Your task to perform on an android device: Turn off the flashlight Image 0: 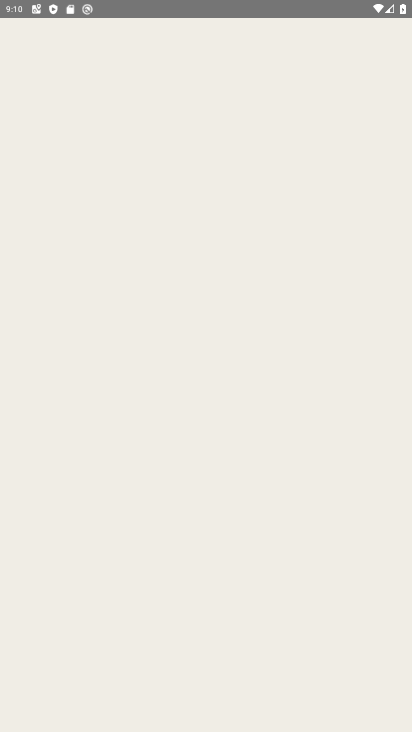
Step 0: drag from (225, 490) to (282, 128)
Your task to perform on an android device: Turn off the flashlight Image 1: 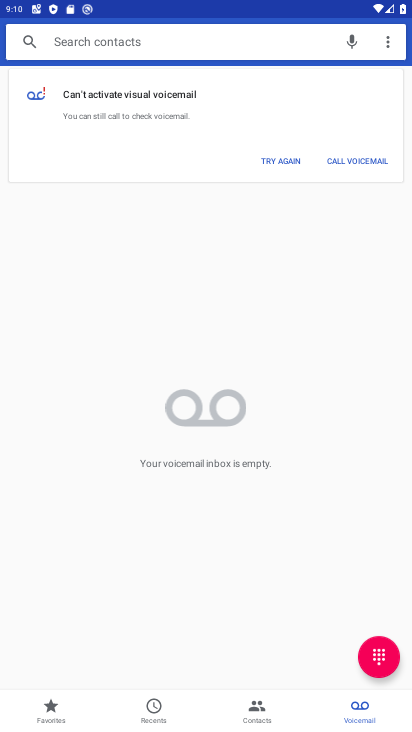
Step 1: press home button
Your task to perform on an android device: Turn off the flashlight Image 2: 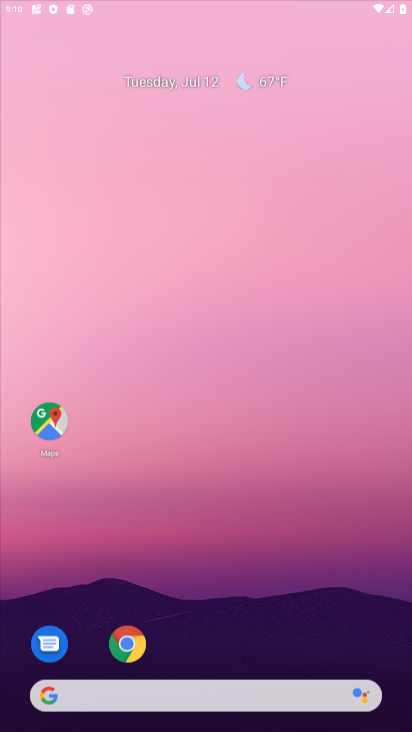
Step 2: drag from (197, 602) to (250, 230)
Your task to perform on an android device: Turn off the flashlight Image 3: 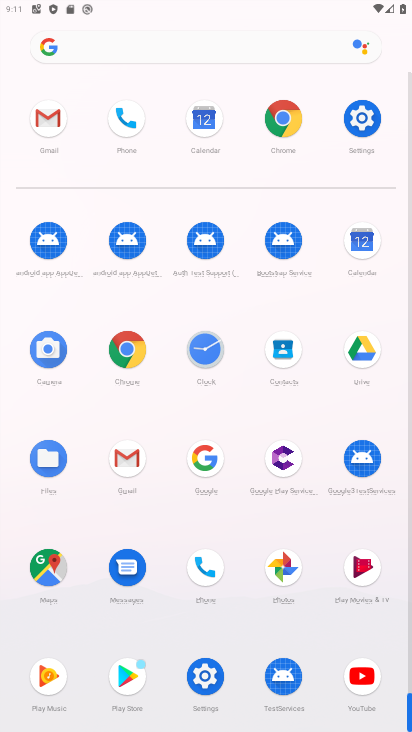
Step 3: click (138, 45)
Your task to perform on an android device: Turn off the flashlight Image 4: 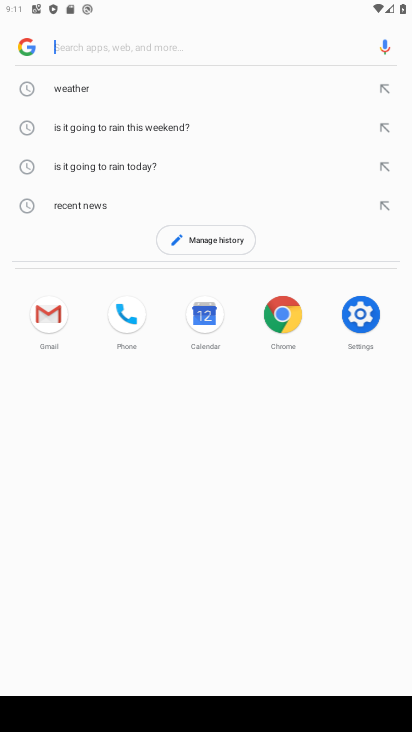
Step 4: click (376, 324)
Your task to perform on an android device: Turn off the flashlight Image 5: 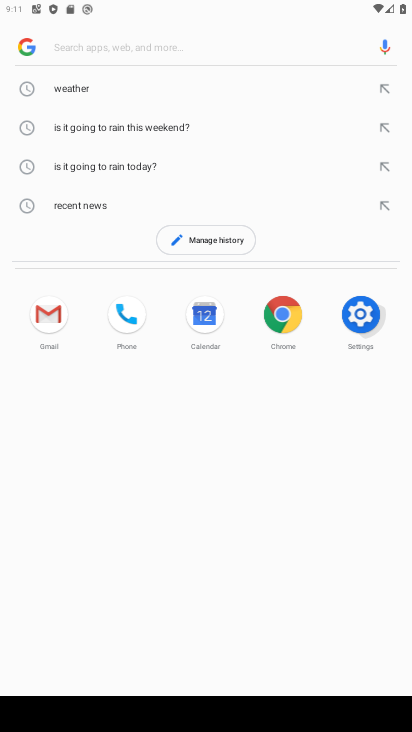
Step 5: click (367, 321)
Your task to perform on an android device: Turn off the flashlight Image 6: 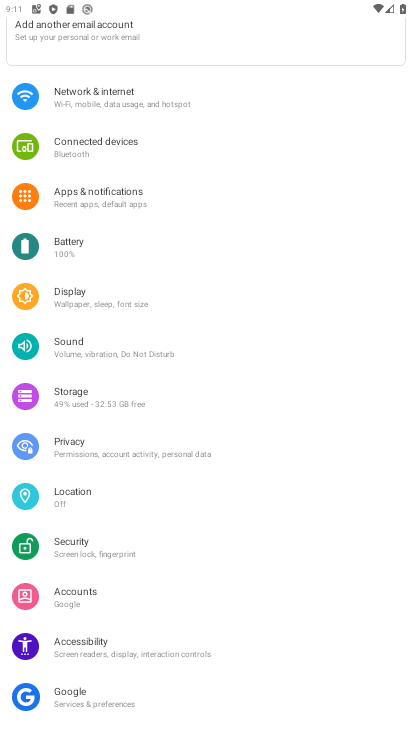
Step 6: drag from (191, 148) to (228, 451)
Your task to perform on an android device: Turn off the flashlight Image 7: 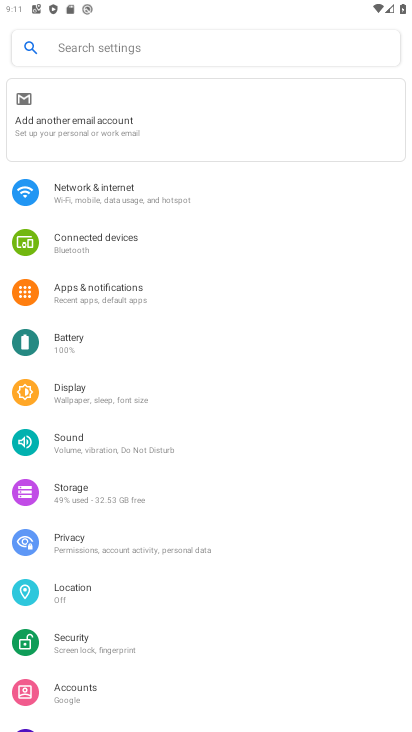
Step 7: click (153, 35)
Your task to perform on an android device: Turn off the flashlight Image 8: 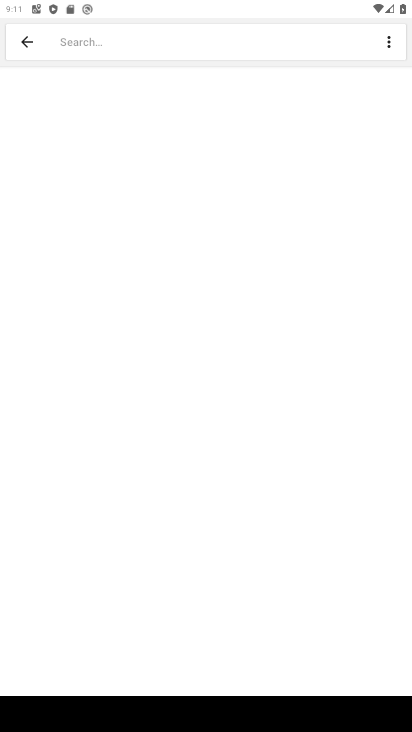
Step 8: click (98, 44)
Your task to perform on an android device: Turn off the flashlight Image 9: 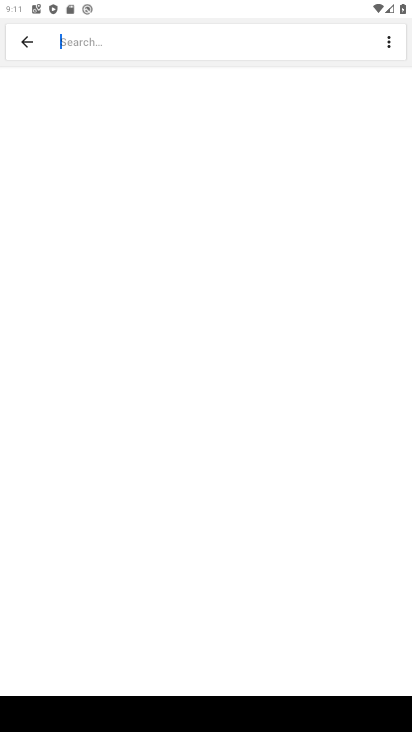
Step 9: type "flashlight"
Your task to perform on an android device: Turn off the flashlight Image 10: 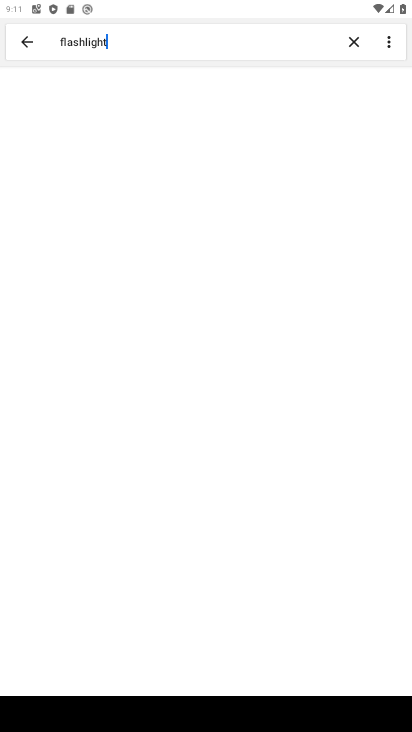
Step 10: type ""
Your task to perform on an android device: Turn off the flashlight Image 11: 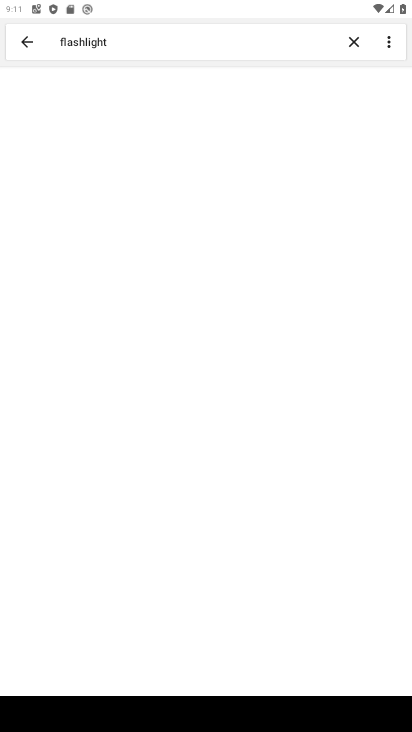
Step 11: click (155, 104)
Your task to perform on an android device: Turn off the flashlight Image 12: 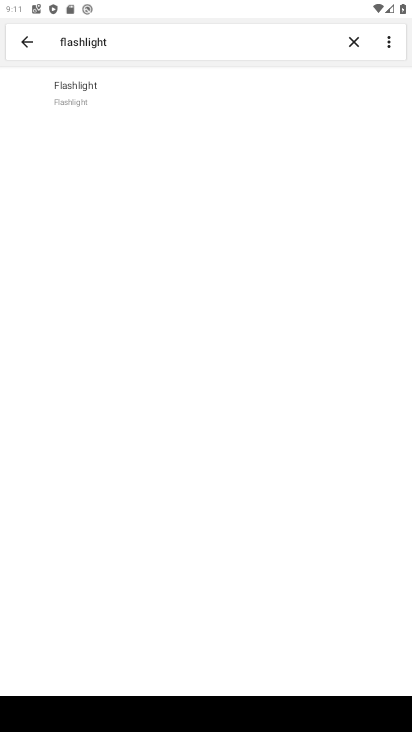
Step 12: click (144, 98)
Your task to perform on an android device: Turn off the flashlight Image 13: 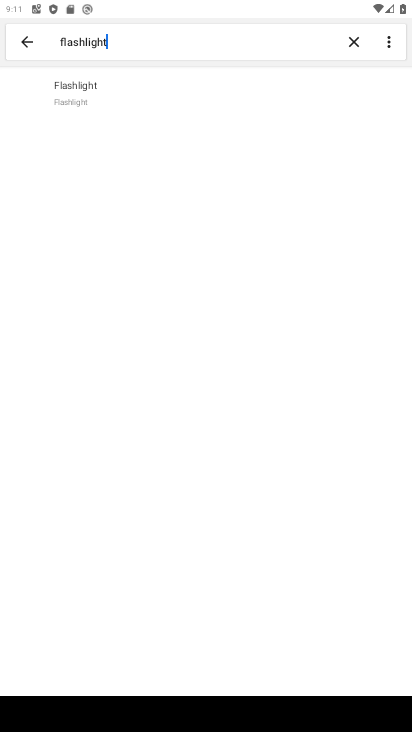
Step 13: click (144, 98)
Your task to perform on an android device: Turn off the flashlight Image 14: 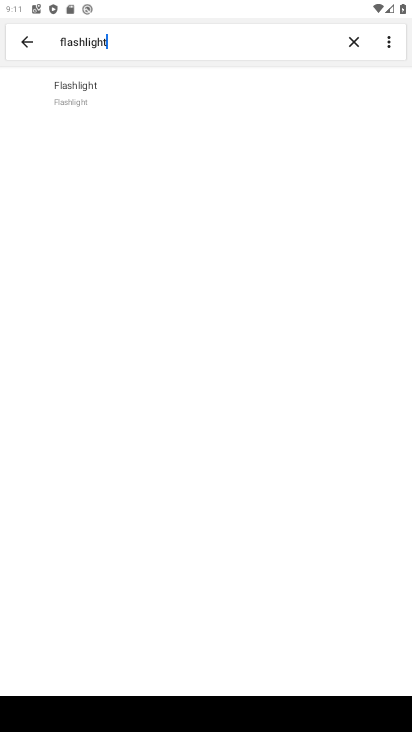
Step 14: task complete